Your task to perform on an android device: see sites visited before in the chrome app Image 0: 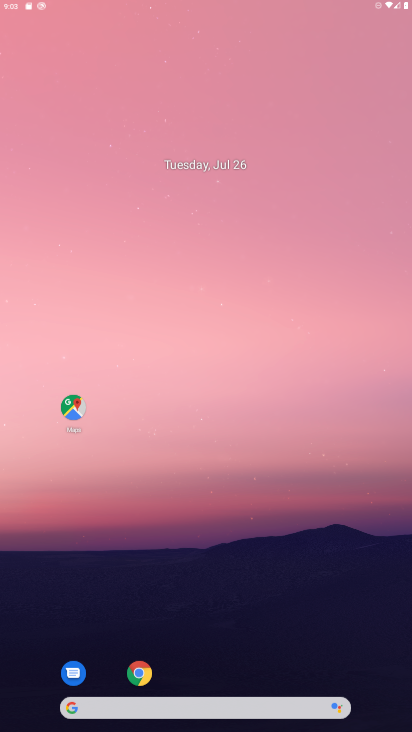
Step 0: press home button
Your task to perform on an android device: see sites visited before in the chrome app Image 1: 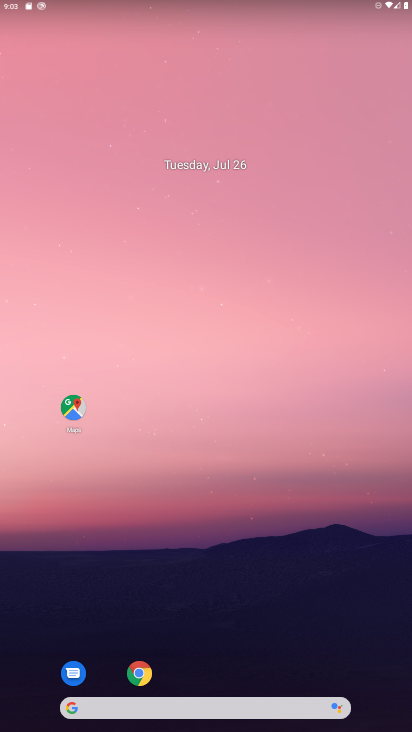
Step 1: click (138, 671)
Your task to perform on an android device: see sites visited before in the chrome app Image 2: 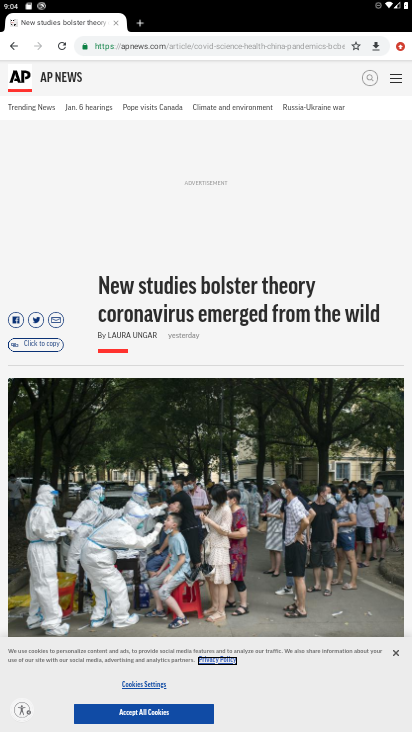
Step 2: click (396, 48)
Your task to perform on an android device: see sites visited before in the chrome app Image 3: 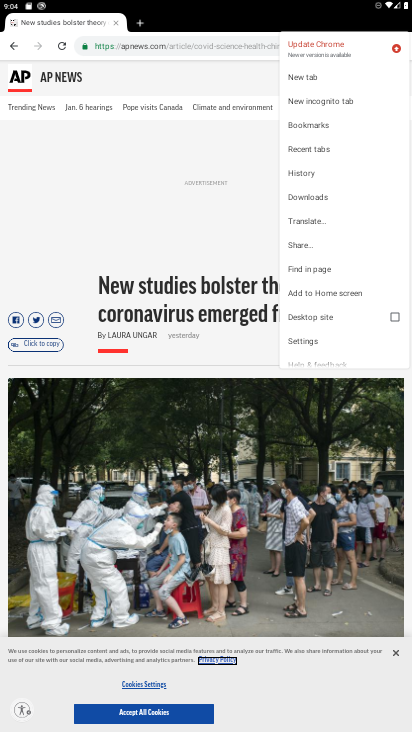
Step 3: click (308, 175)
Your task to perform on an android device: see sites visited before in the chrome app Image 4: 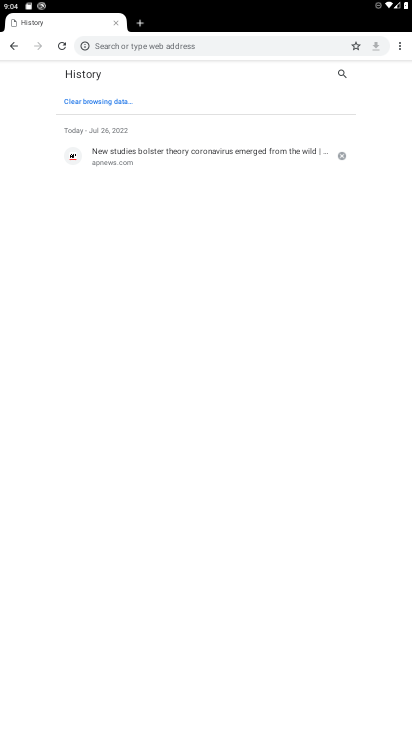
Step 4: task complete